Your task to perform on an android device: turn on wifi Image 0: 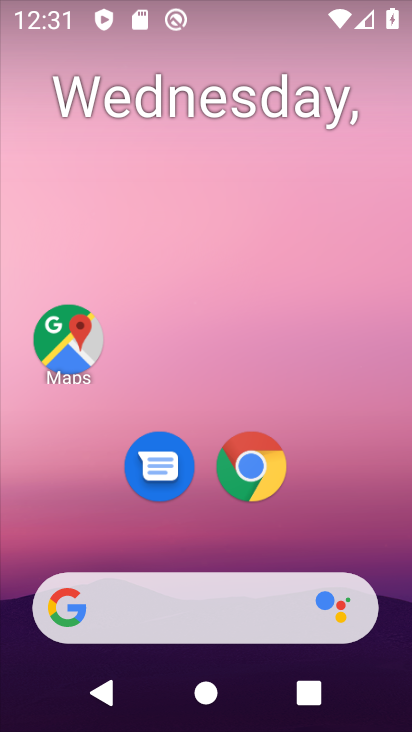
Step 0: drag from (327, 486) to (256, 153)
Your task to perform on an android device: turn on wifi Image 1: 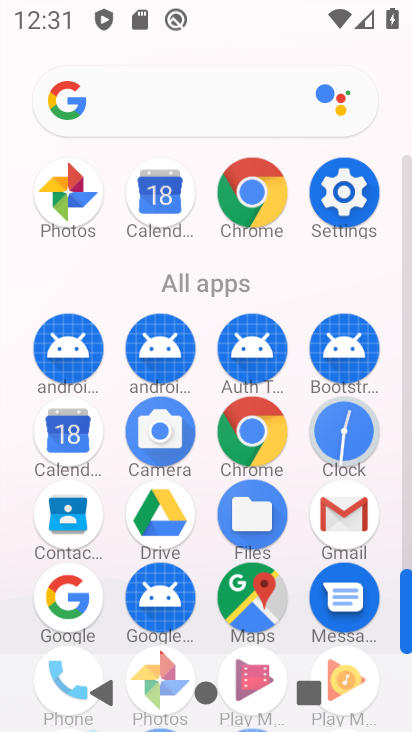
Step 1: click (344, 192)
Your task to perform on an android device: turn on wifi Image 2: 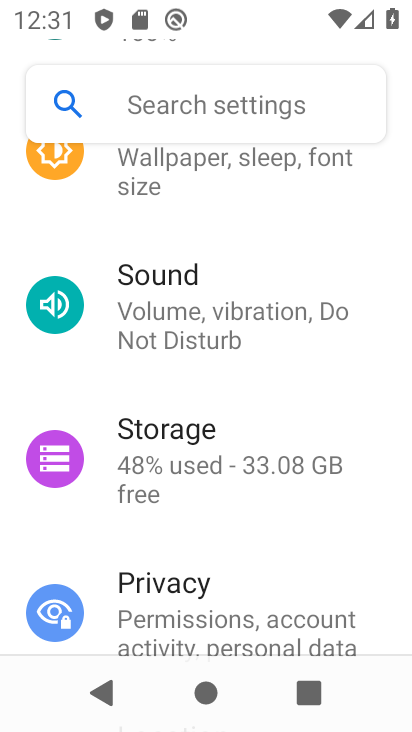
Step 2: drag from (230, 350) to (241, 458)
Your task to perform on an android device: turn on wifi Image 3: 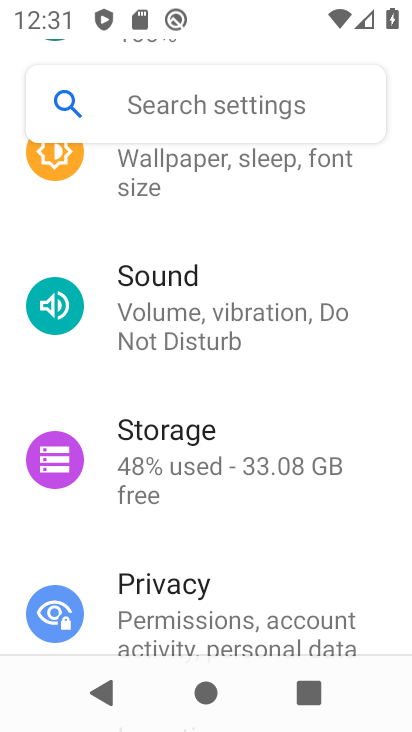
Step 3: drag from (262, 211) to (253, 471)
Your task to perform on an android device: turn on wifi Image 4: 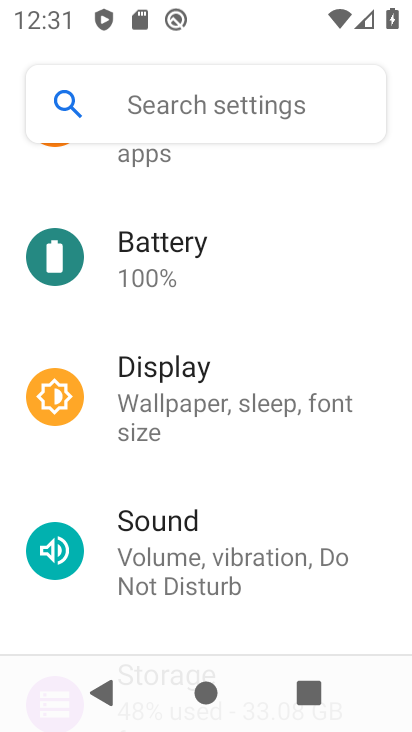
Step 4: drag from (256, 199) to (263, 432)
Your task to perform on an android device: turn on wifi Image 5: 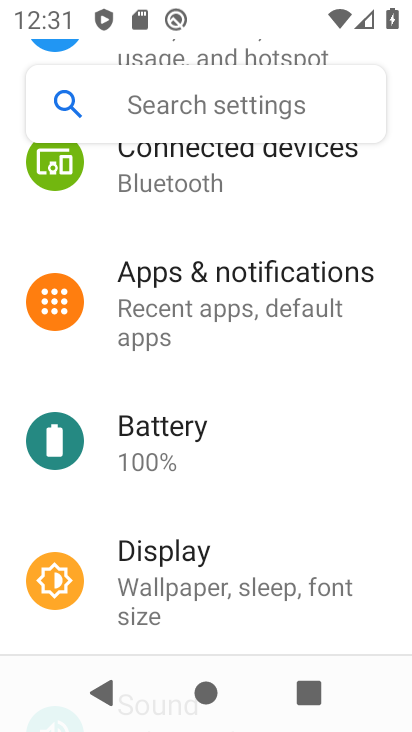
Step 5: drag from (286, 213) to (237, 507)
Your task to perform on an android device: turn on wifi Image 6: 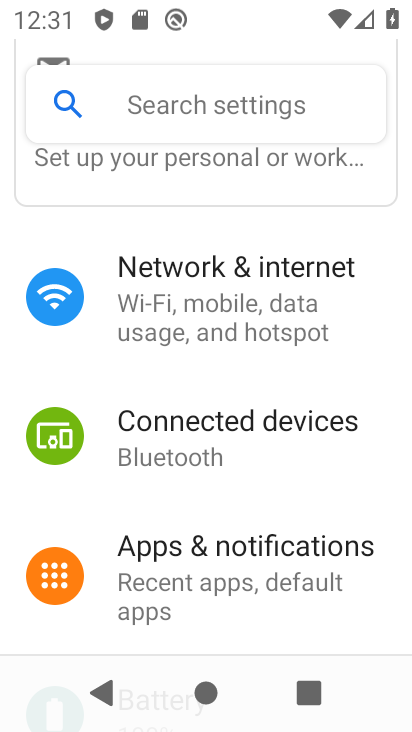
Step 6: click (281, 269)
Your task to perform on an android device: turn on wifi Image 7: 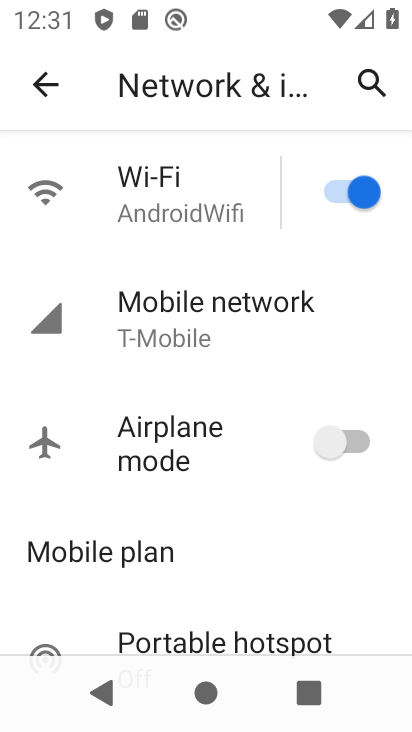
Step 7: task complete